Your task to perform on an android device: Open calendar and show me the fourth week of next month Image 0: 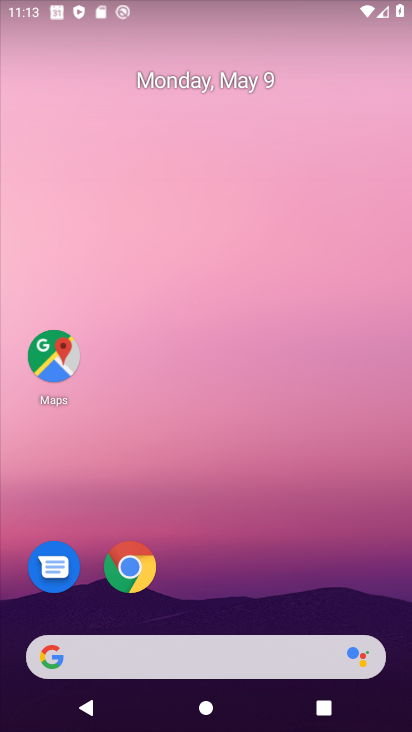
Step 0: drag from (391, 629) to (303, 53)
Your task to perform on an android device: Open calendar and show me the fourth week of next month Image 1: 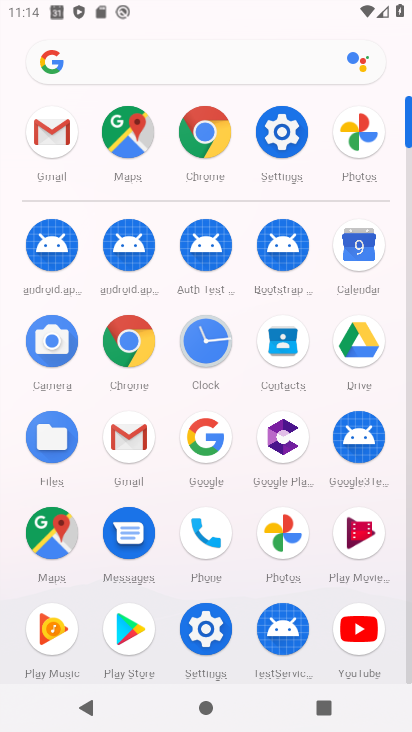
Step 1: click (347, 261)
Your task to perform on an android device: Open calendar and show me the fourth week of next month Image 2: 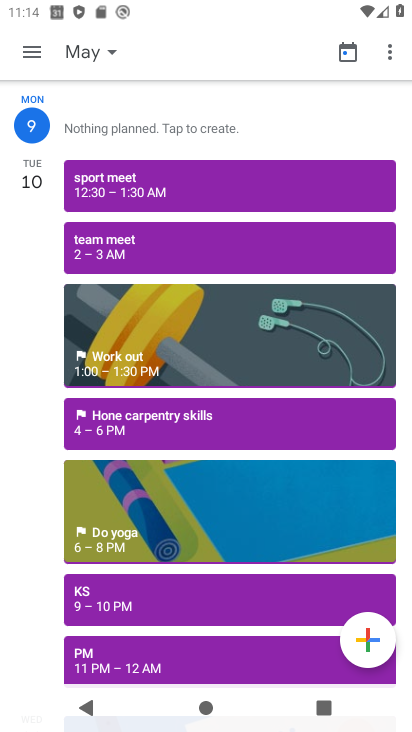
Step 2: click (78, 51)
Your task to perform on an android device: Open calendar and show me the fourth week of next month Image 3: 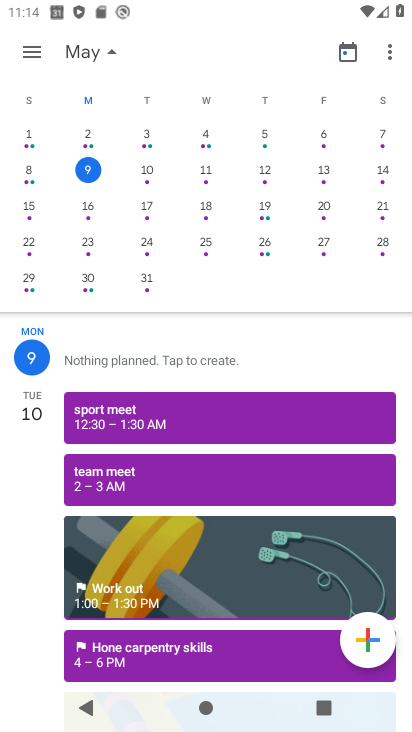
Step 3: drag from (348, 240) to (0, 171)
Your task to perform on an android device: Open calendar and show me the fourth week of next month Image 4: 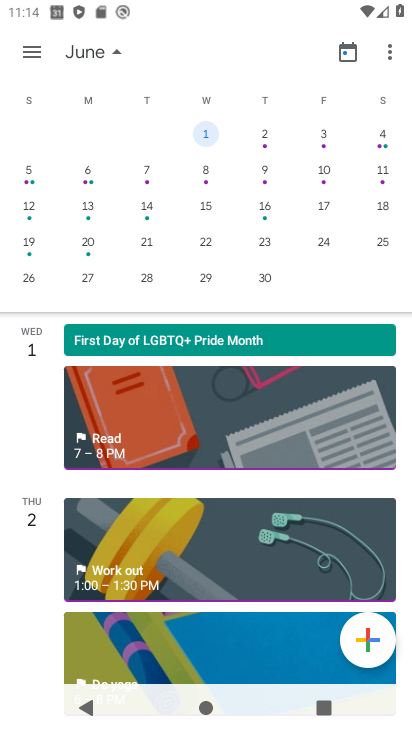
Step 4: click (150, 278)
Your task to perform on an android device: Open calendar and show me the fourth week of next month Image 5: 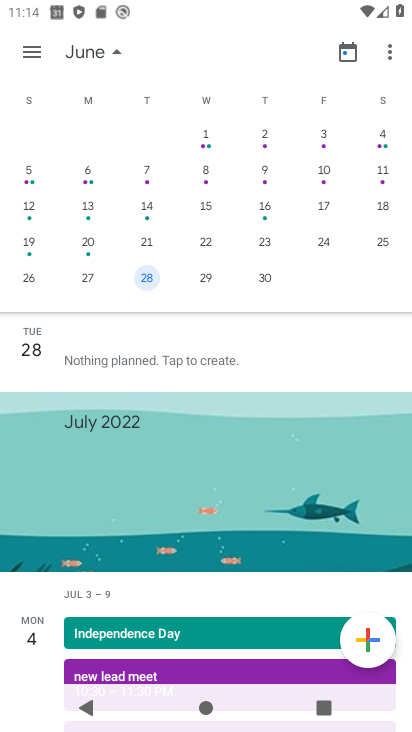
Step 5: task complete